Your task to perform on an android device: turn on location history Image 0: 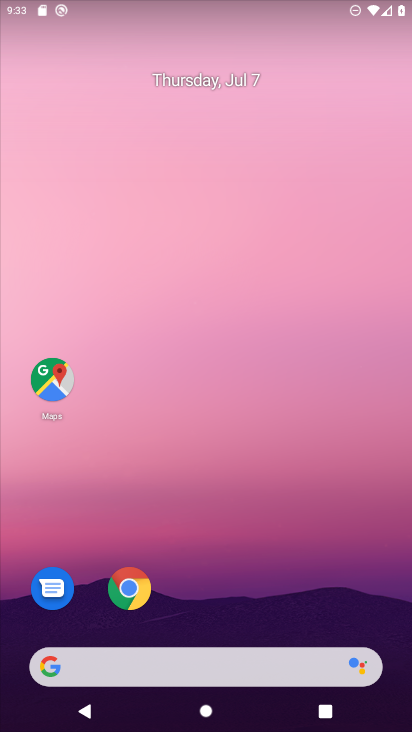
Step 0: drag from (267, 9) to (242, 603)
Your task to perform on an android device: turn on location history Image 1: 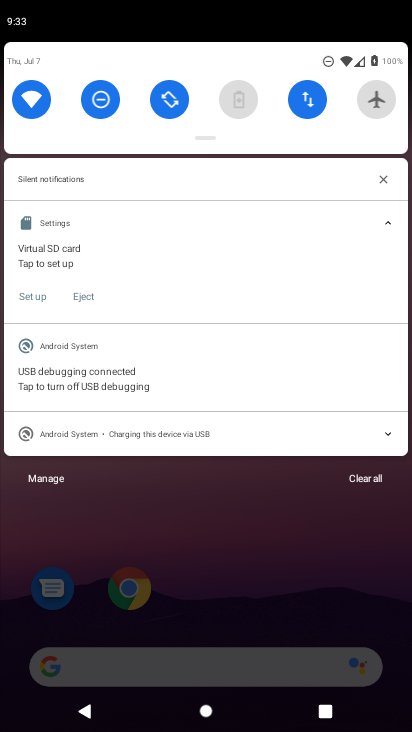
Step 1: drag from (252, 49) to (252, 598)
Your task to perform on an android device: turn on location history Image 2: 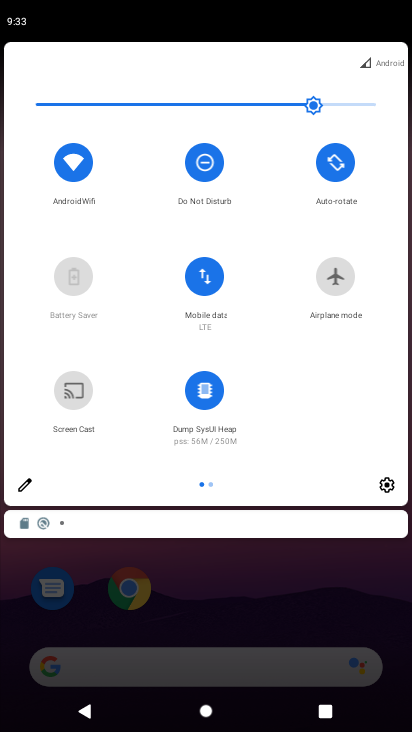
Step 2: click (391, 491)
Your task to perform on an android device: turn on location history Image 3: 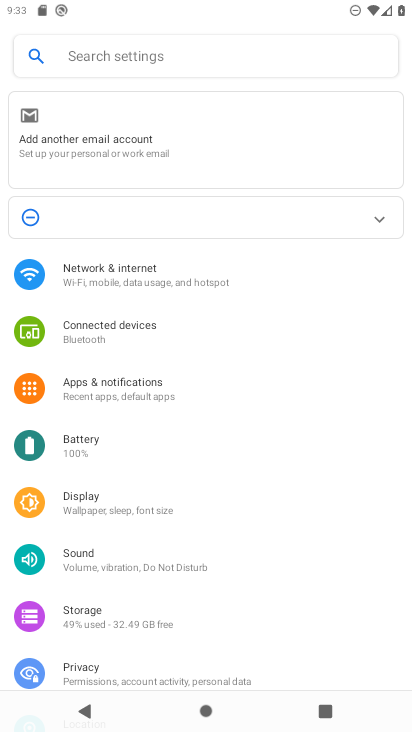
Step 3: drag from (112, 610) to (176, 246)
Your task to perform on an android device: turn on location history Image 4: 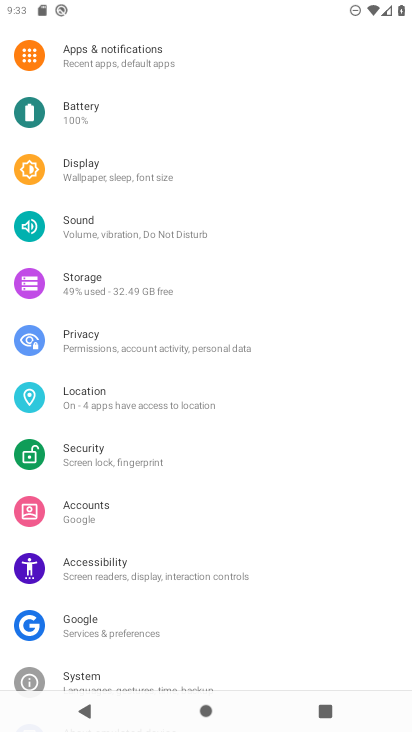
Step 4: click (136, 413)
Your task to perform on an android device: turn on location history Image 5: 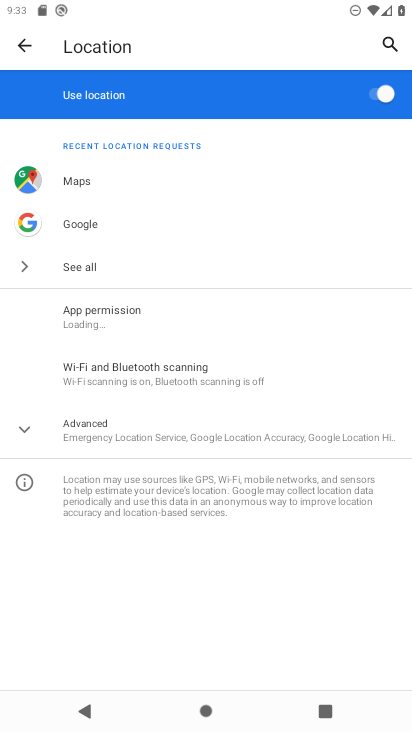
Step 5: click (112, 441)
Your task to perform on an android device: turn on location history Image 6: 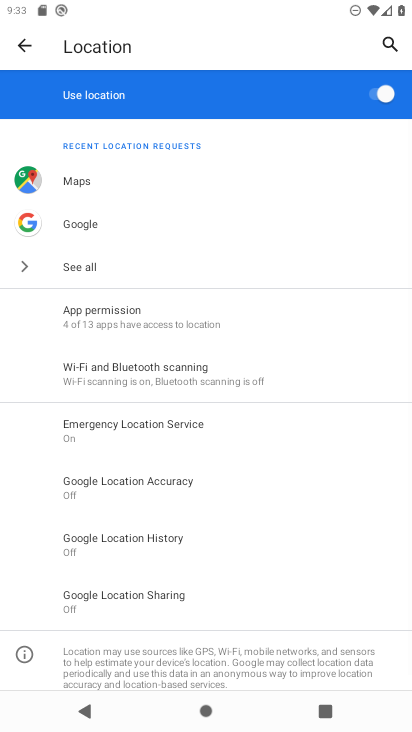
Step 6: click (131, 545)
Your task to perform on an android device: turn on location history Image 7: 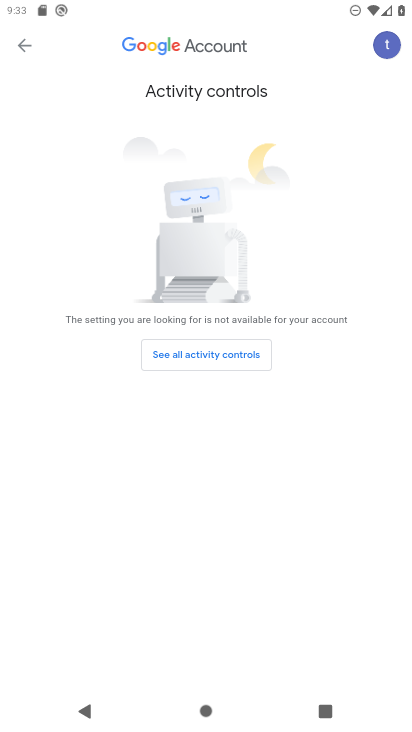
Step 7: task complete